Your task to perform on an android device: Open privacy settings Image 0: 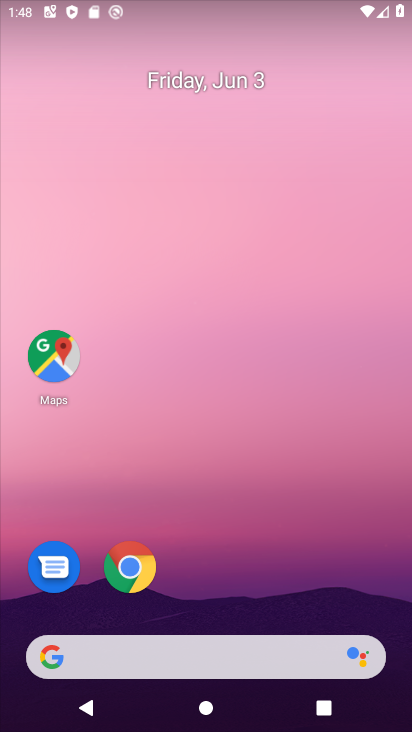
Step 0: drag from (276, 621) to (339, 44)
Your task to perform on an android device: Open privacy settings Image 1: 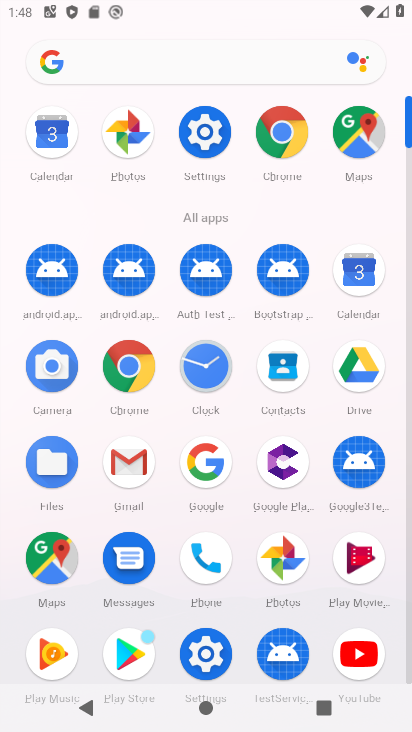
Step 1: click (200, 140)
Your task to perform on an android device: Open privacy settings Image 2: 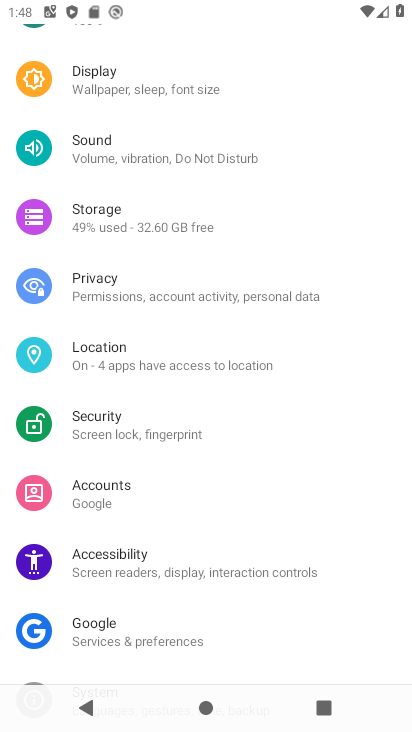
Step 2: click (119, 289)
Your task to perform on an android device: Open privacy settings Image 3: 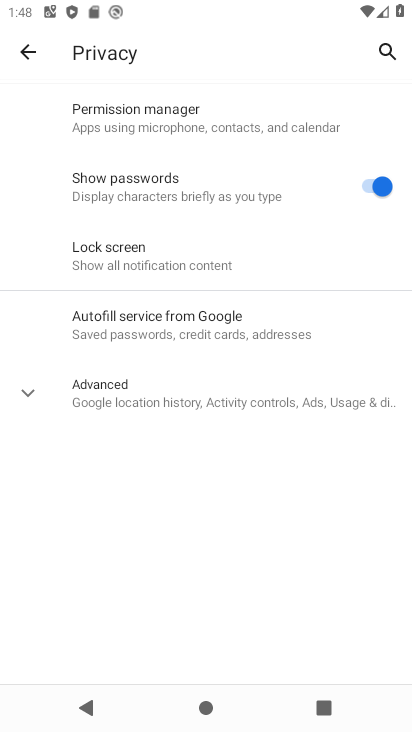
Step 3: task complete